Your task to perform on an android device: Go to battery settings Image 0: 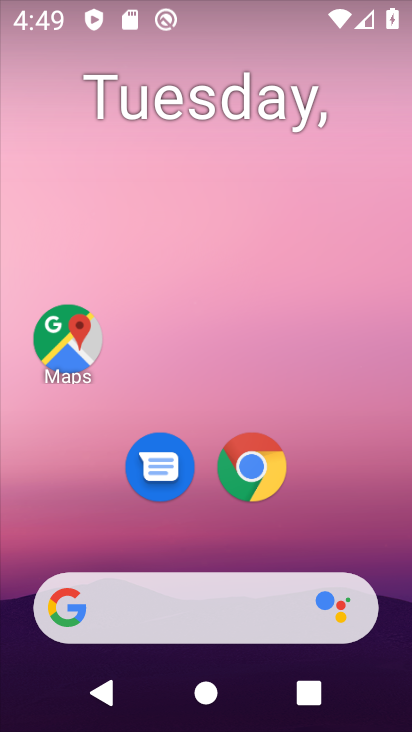
Step 0: drag from (334, 477) to (343, 141)
Your task to perform on an android device: Go to battery settings Image 1: 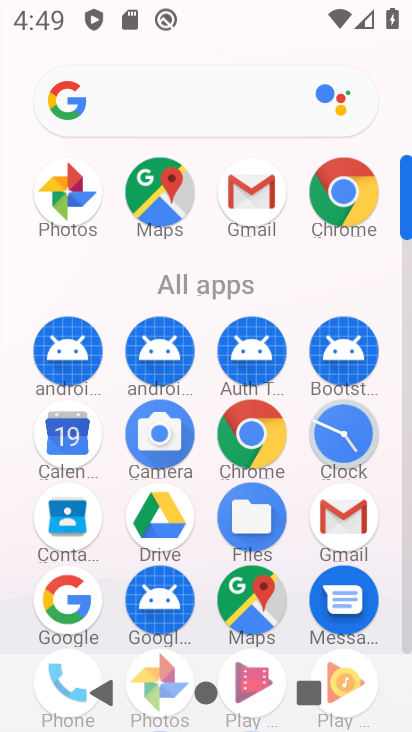
Step 1: drag from (315, 516) to (337, 275)
Your task to perform on an android device: Go to battery settings Image 2: 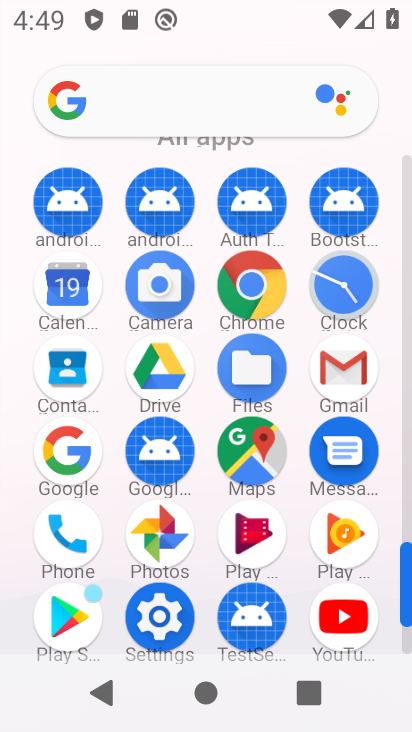
Step 2: click (170, 603)
Your task to perform on an android device: Go to battery settings Image 3: 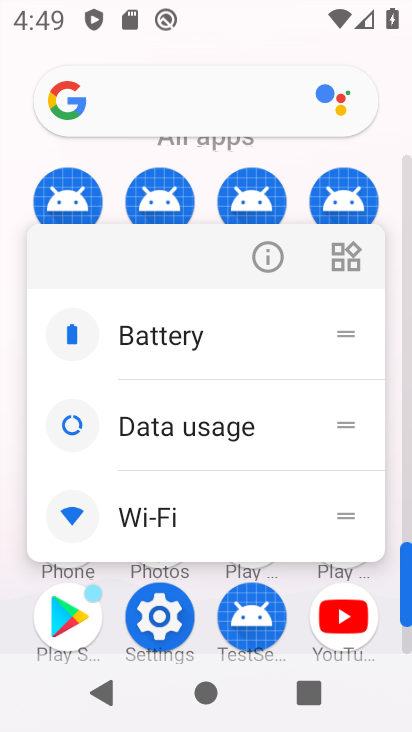
Step 3: click (166, 632)
Your task to perform on an android device: Go to battery settings Image 4: 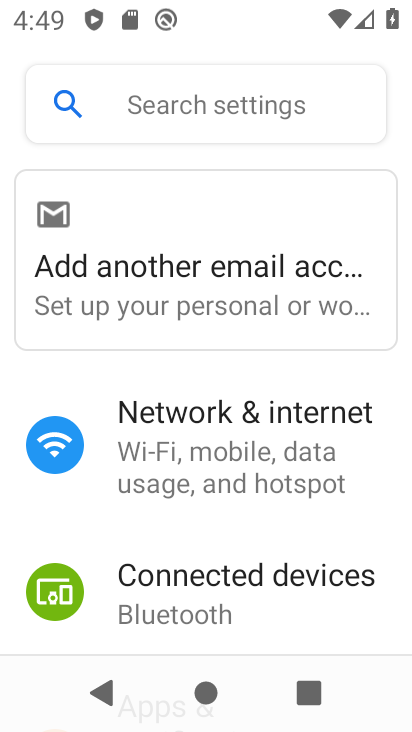
Step 4: drag from (234, 261) to (276, 4)
Your task to perform on an android device: Go to battery settings Image 5: 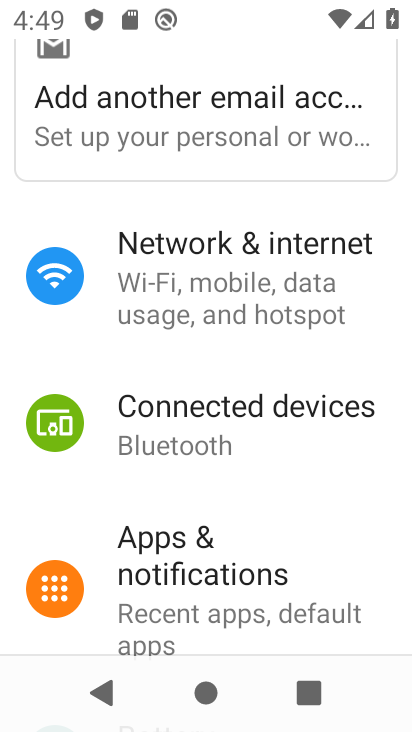
Step 5: drag from (225, 510) to (258, 247)
Your task to perform on an android device: Go to battery settings Image 6: 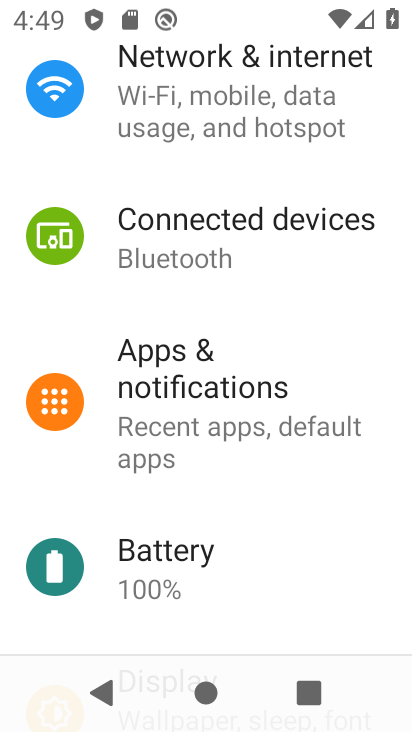
Step 6: click (224, 574)
Your task to perform on an android device: Go to battery settings Image 7: 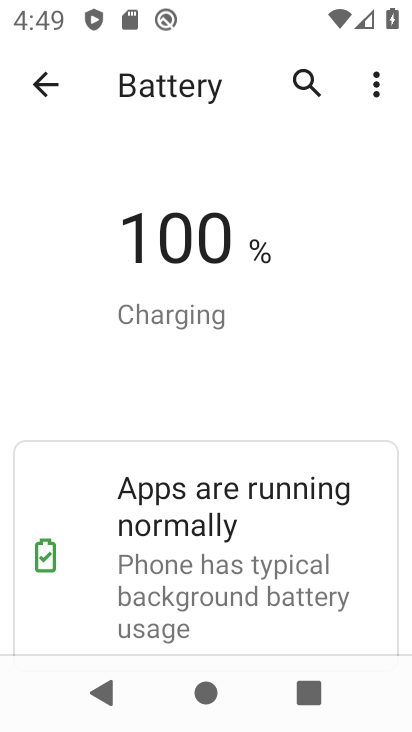
Step 7: task complete